Your task to perform on an android device: add a contact in the contacts app Image 0: 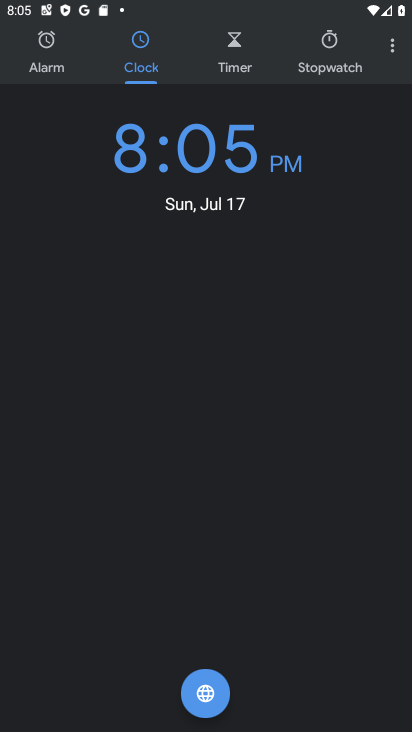
Step 0: press home button
Your task to perform on an android device: add a contact in the contacts app Image 1: 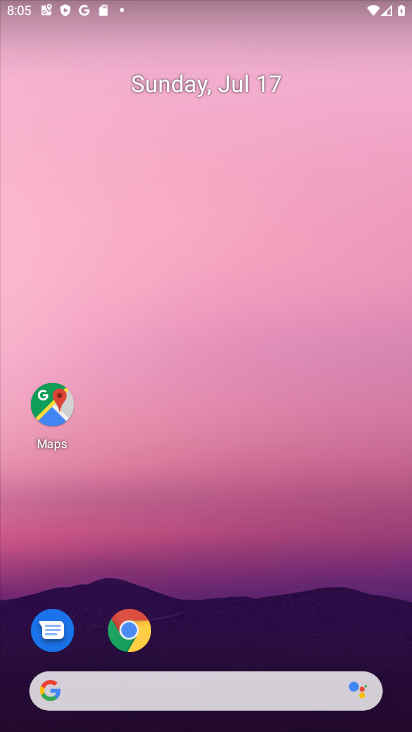
Step 1: drag from (174, 421) to (172, 17)
Your task to perform on an android device: add a contact in the contacts app Image 2: 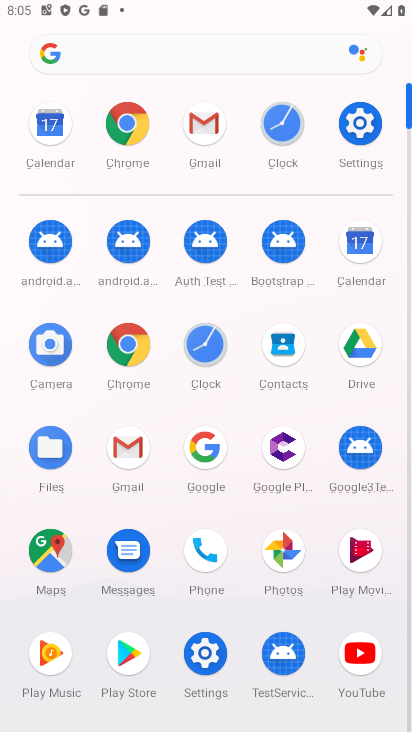
Step 2: click (277, 358)
Your task to perform on an android device: add a contact in the contacts app Image 3: 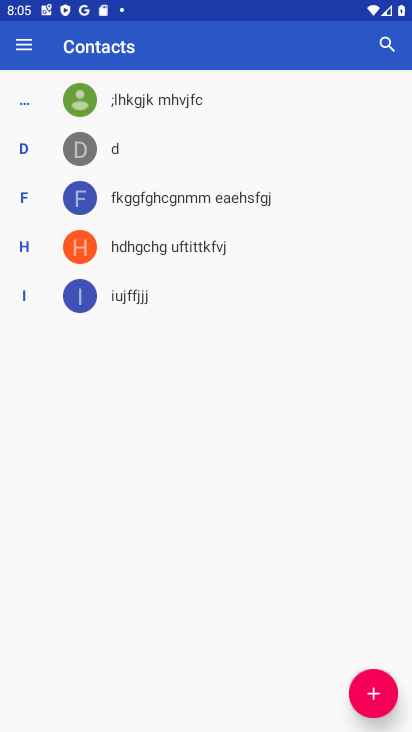
Step 3: click (370, 701)
Your task to perform on an android device: add a contact in the contacts app Image 4: 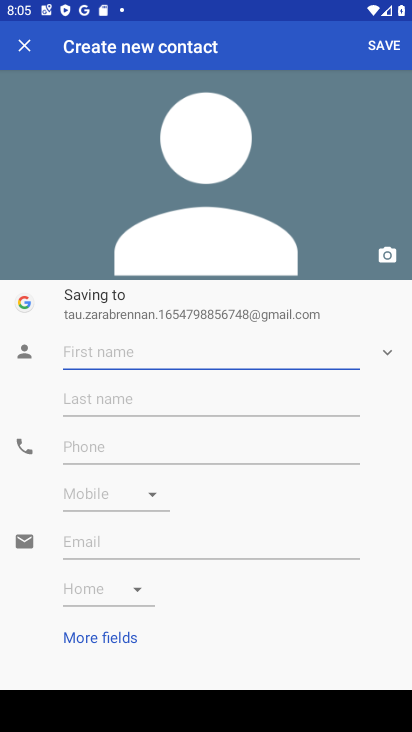
Step 4: type "Namitha"
Your task to perform on an android device: add a contact in the contacts app Image 5: 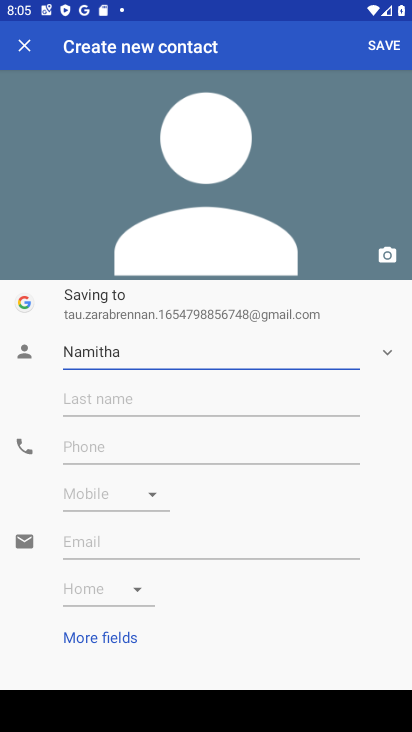
Step 5: click (133, 404)
Your task to perform on an android device: add a contact in the contacts app Image 6: 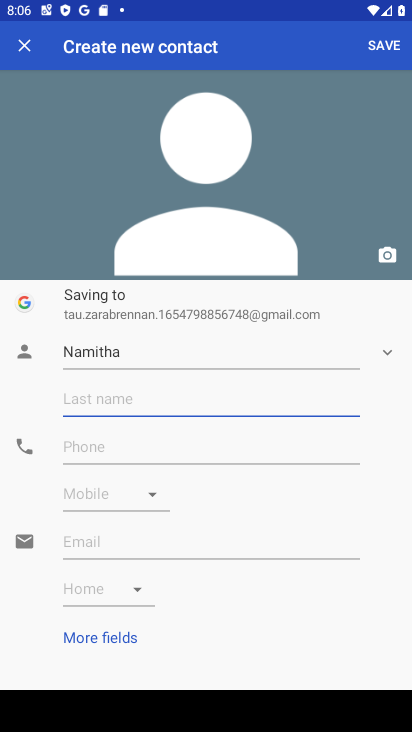
Step 6: type "Reddi"
Your task to perform on an android device: add a contact in the contacts app Image 7: 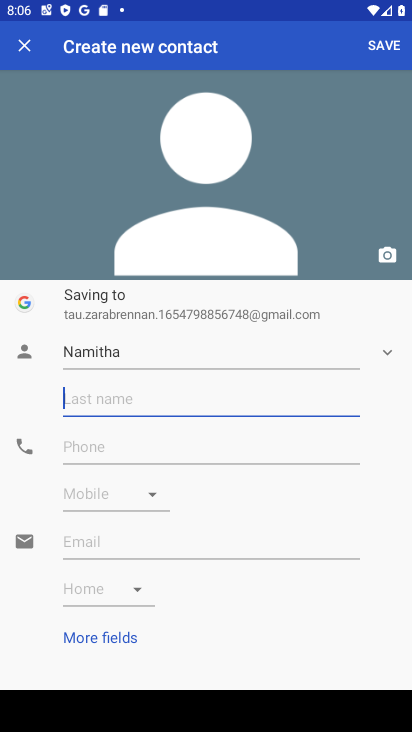
Step 7: click (115, 449)
Your task to perform on an android device: add a contact in the contacts app Image 8: 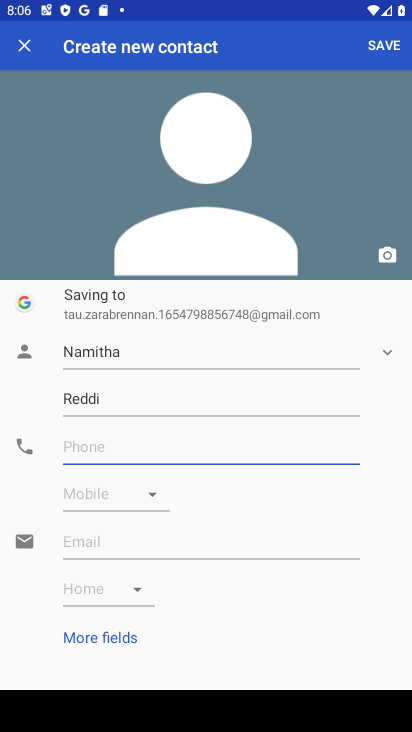
Step 8: type "9090090990"
Your task to perform on an android device: add a contact in the contacts app Image 9: 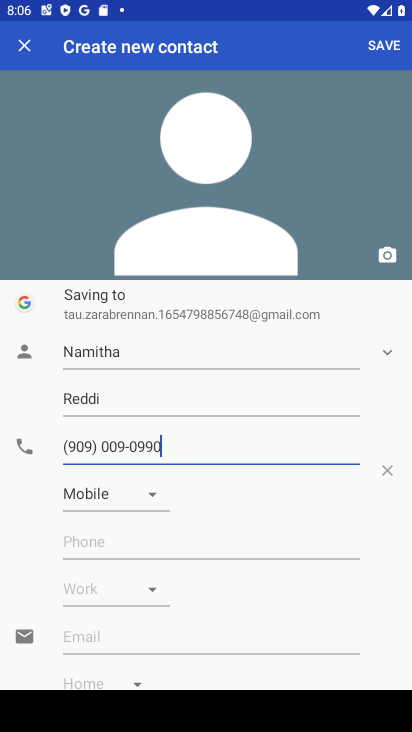
Step 9: click (379, 40)
Your task to perform on an android device: add a contact in the contacts app Image 10: 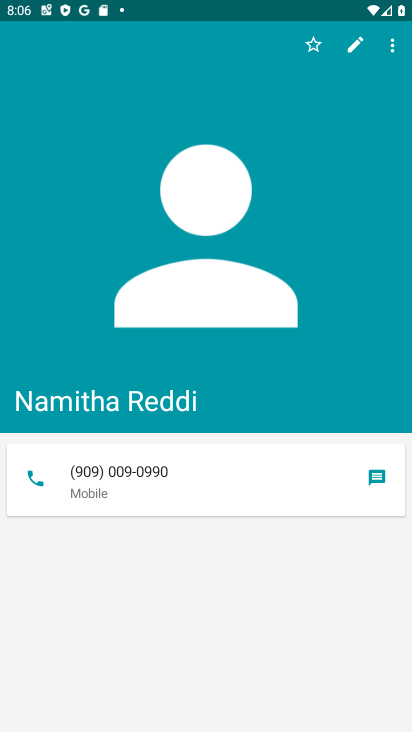
Step 10: task complete